Your task to perform on an android device: Open battery settings Image 0: 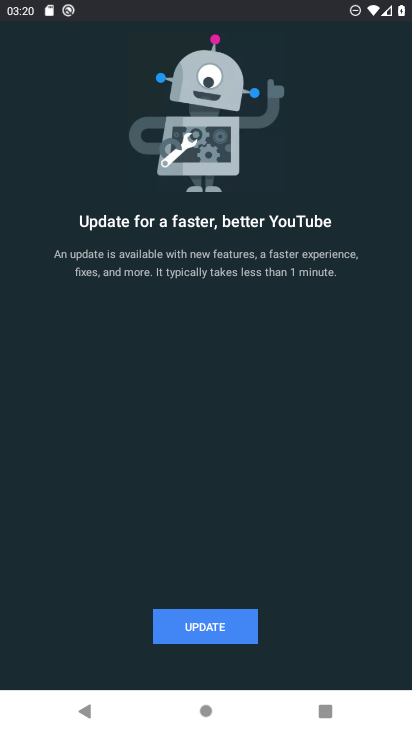
Step 0: press home button
Your task to perform on an android device: Open battery settings Image 1: 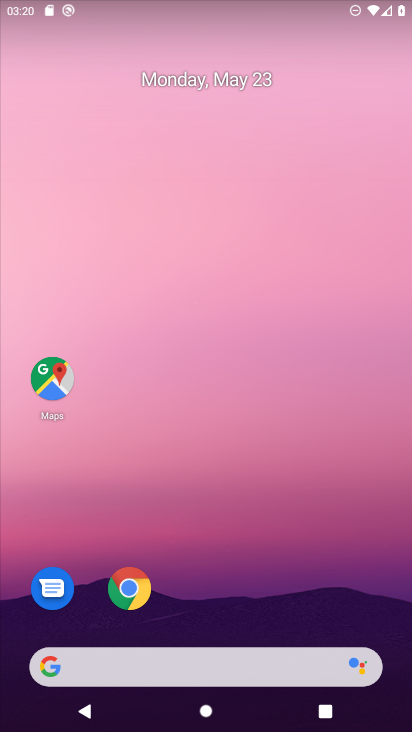
Step 1: drag from (241, 724) to (242, 177)
Your task to perform on an android device: Open battery settings Image 2: 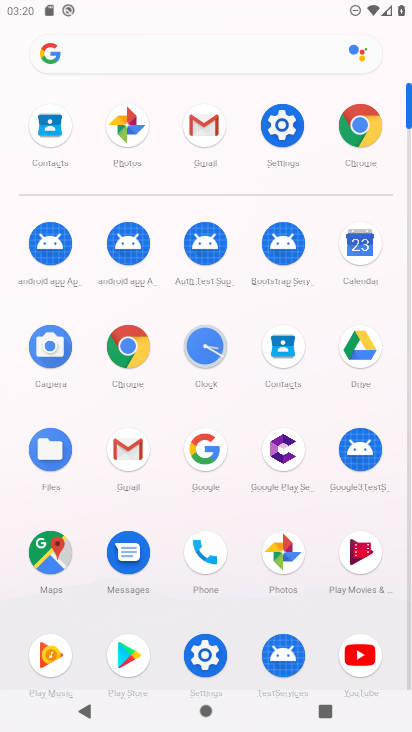
Step 2: click (277, 130)
Your task to perform on an android device: Open battery settings Image 3: 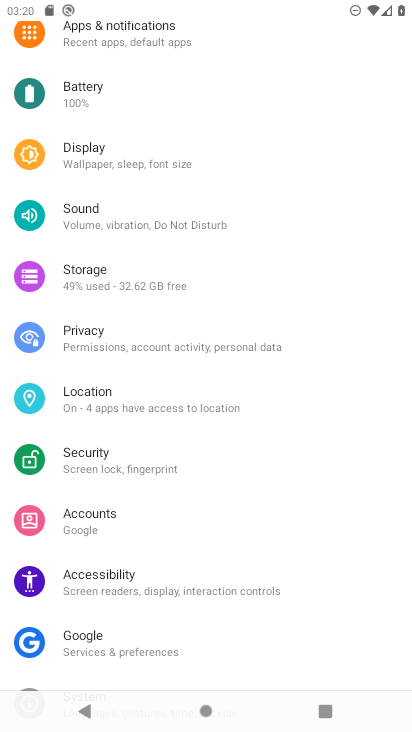
Step 3: click (80, 99)
Your task to perform on an android device: Open battery settings Image 4: 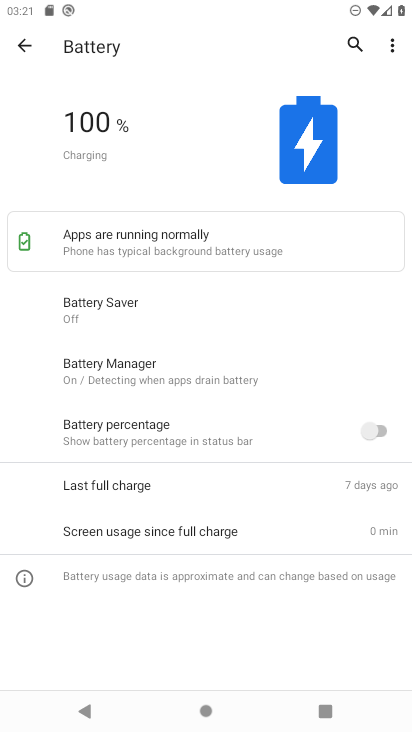
Step 4: task complete